Your task to perform on an android device: turn on translation in the chrome app Image 0: 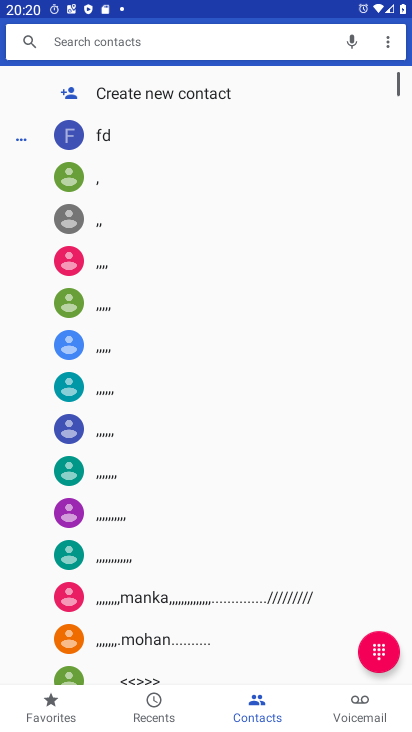
Step 0: press home button
Your task to perform on an android device: turn on translation in the chrome app Image 1: 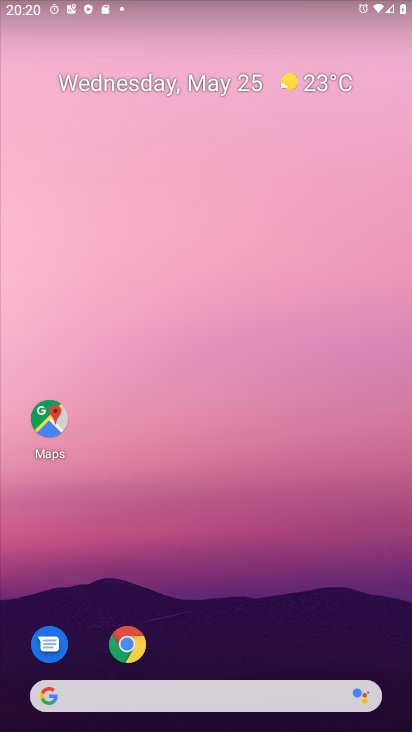
Step 1: drag from (292, 705) to (269, 203)
Your task to perform on an android device: turn on translation in the chrome app Image 2: 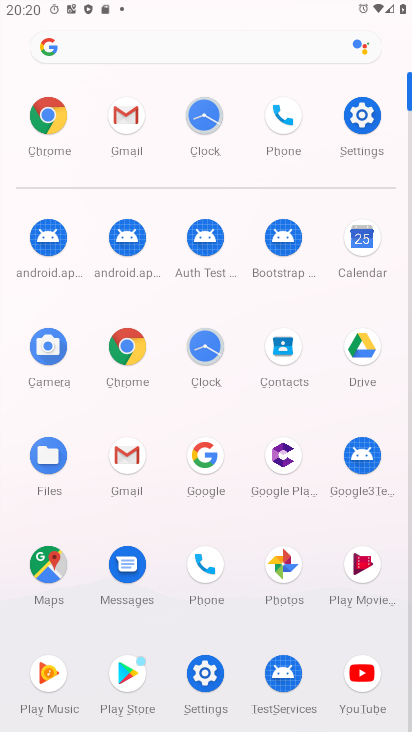
Step 2: click (116, 343)
Your task to perform on an android device: turn on translation in the chrome app Image 3: 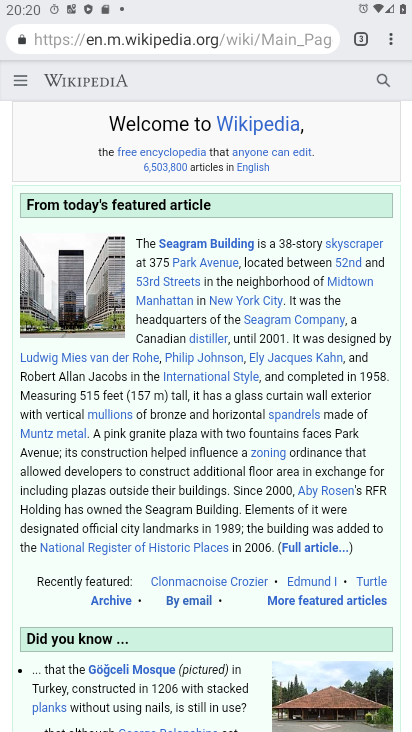
Step 3: click (387, 49)
Your task to perform on an android device: turn on translation in the chrome app Image 4: 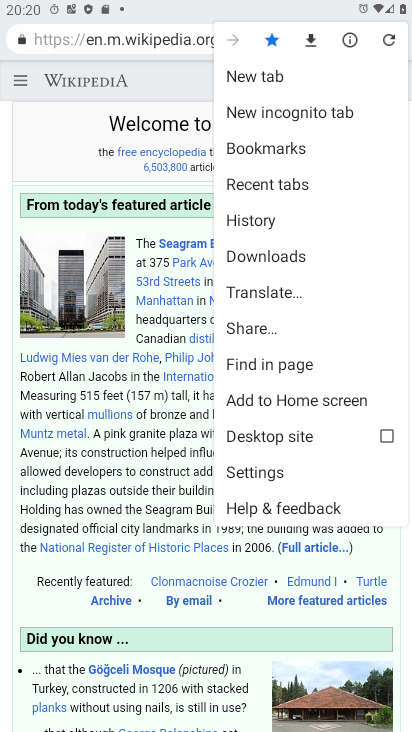
Step 4: click (261, 471)
Your task to perform on an android device: turn on translation in the chrome app Image 5: 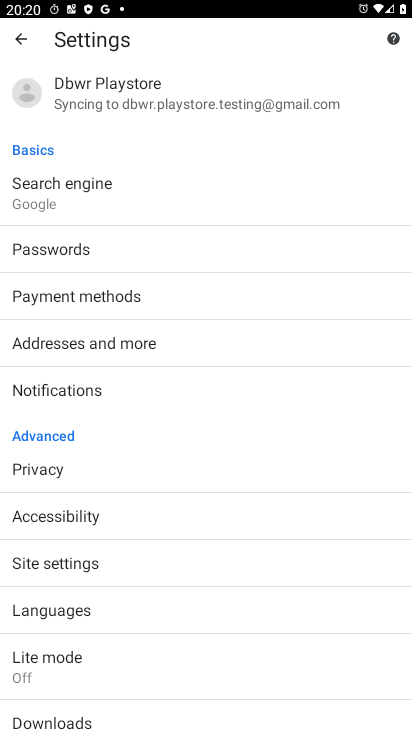
Step 5: click (91, 618)
Your task to perform on an android device: turn on translation in the chrome app Image 6: 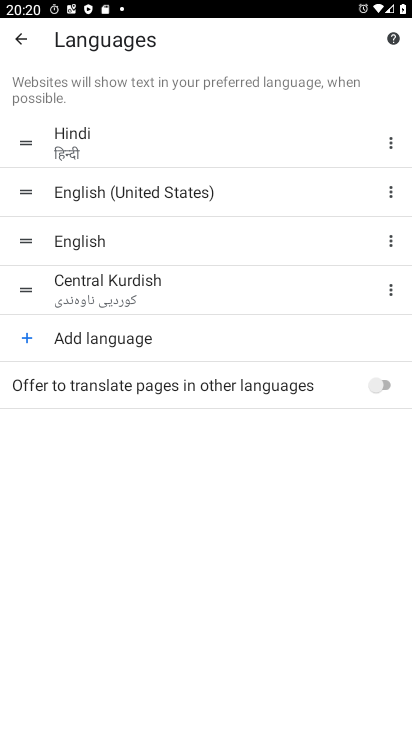
Step 6: click (376, 399)
Your task to perform on an android device: turn on translation in the chrome app Image 7: 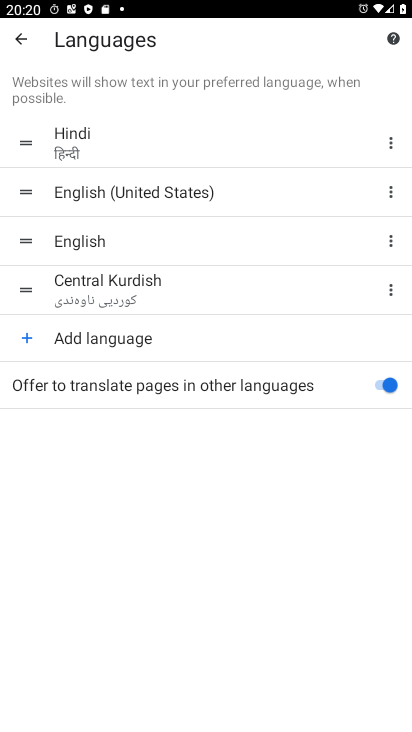
Step 7: task complete